Your task to perform on an android device: Open the phone app and click the voicemail tab. Image 0: 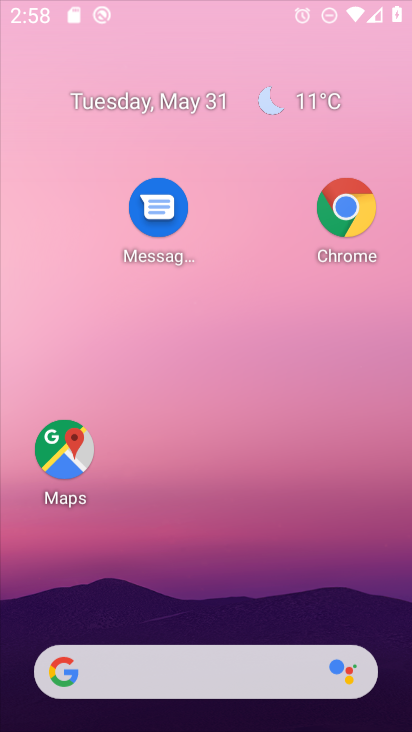
Step 0: click (257, 75)
Your task to perform on an android device: Open the phone app and click the voicemail tab. Image 1: 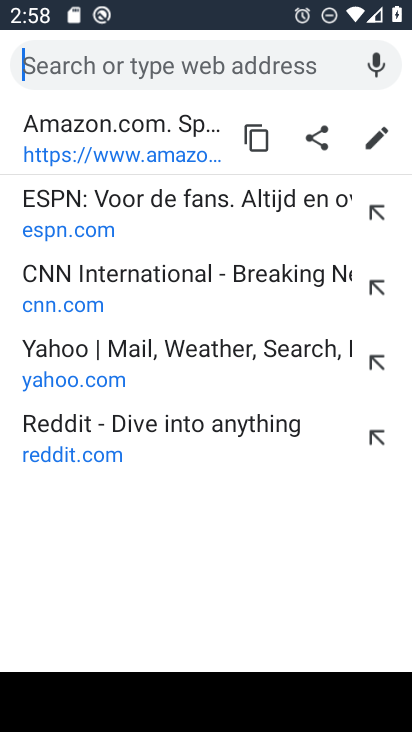
Step 1: press back button
Your task to perform on an android device: Open the phone app and click the voicemail tab. Image 2: 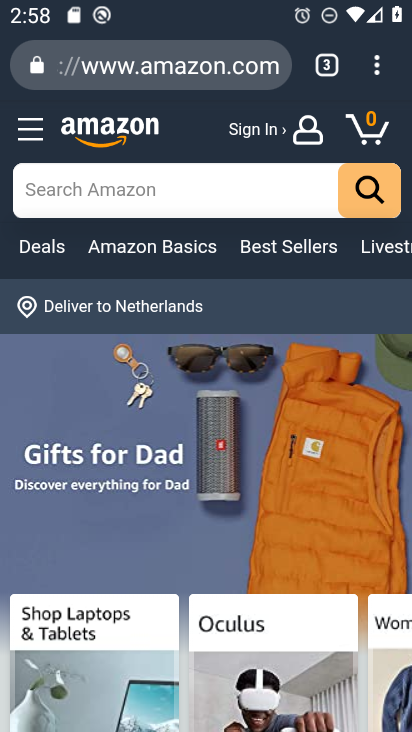
Step 2: drag from (208, 519) to (269, 131)
Your task to perform on an android device: Open the phone app and click the voicemail tab. Image 3: 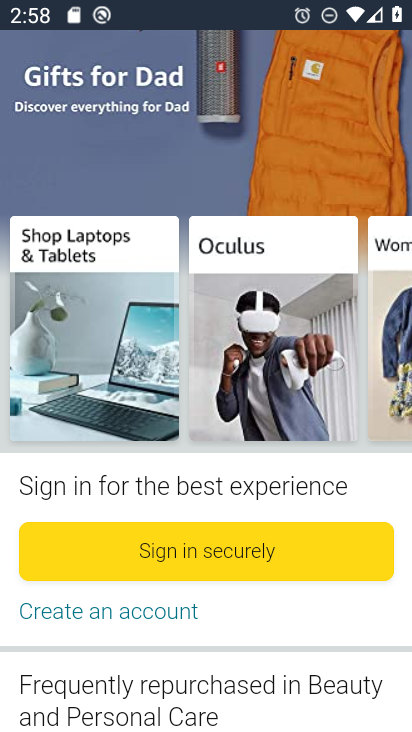
Step 3: drag from (266, 151) to (225, 569)
Your task to perform on an android device: Open the phone app and click the voicemail tab. Image 4: 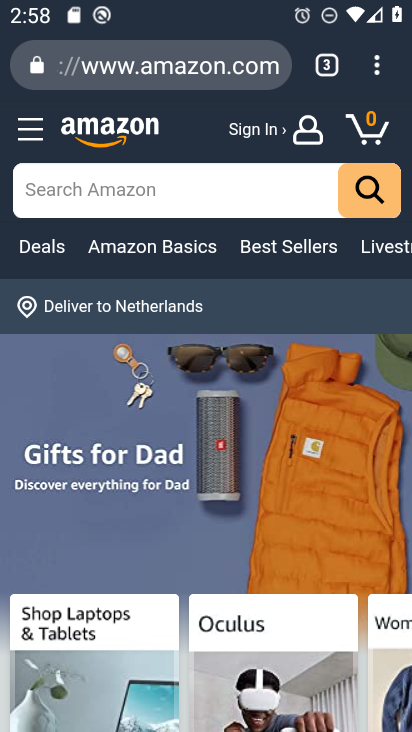
Step 4: press home button
Your task to perform on an android device: Open the phone app and click the voicemail tab. Image 5: 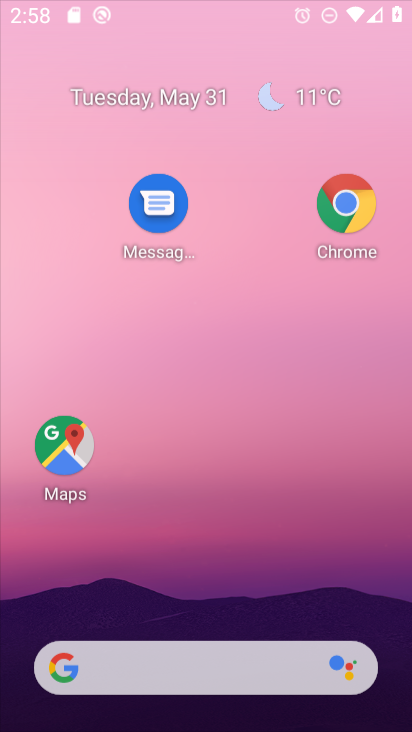
Step 5: drag from (207, 562) to (186, 0)
Your task to perform on an android device: Open the phone app and click the voicemail tab. Image 6: 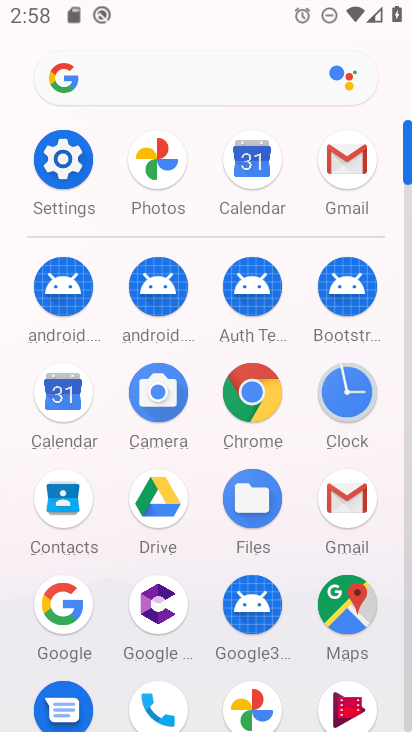
Step 6: click (160, 690)
Your task to perform on an android device: Open the phone app and click the voicemail tab. Image 7: 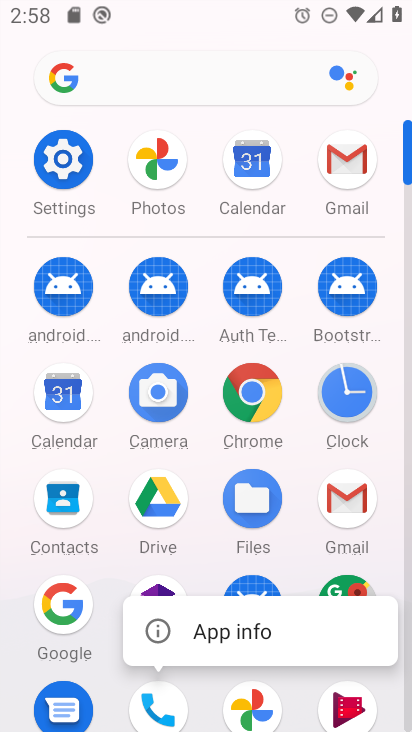
Step 7: click (197, 621)
Your task to perform on an android device: Open the phone app and click the voicemail tab. Image 8: 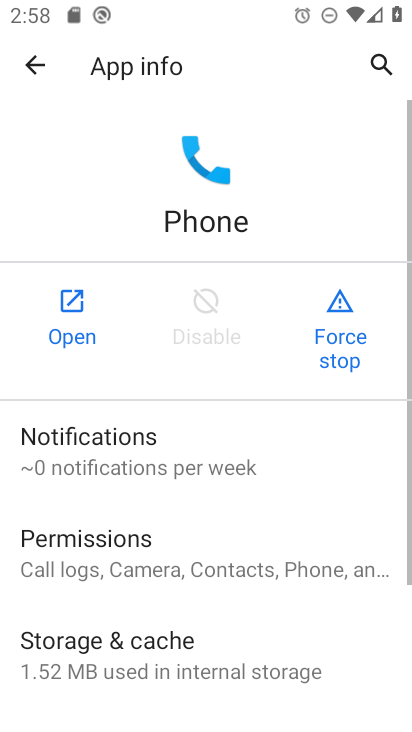
Step 8: click (73, 329)
Your task to perform on an android device: Open the phone app and click the voicemail tab. Image 9: 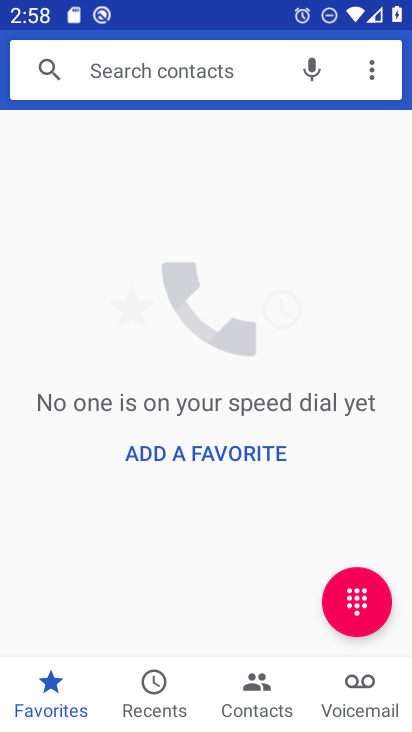
Step 9: click (350, 701)
Your task to perform on an android device: Open the phone app and click the voicemail tab. Image 10: 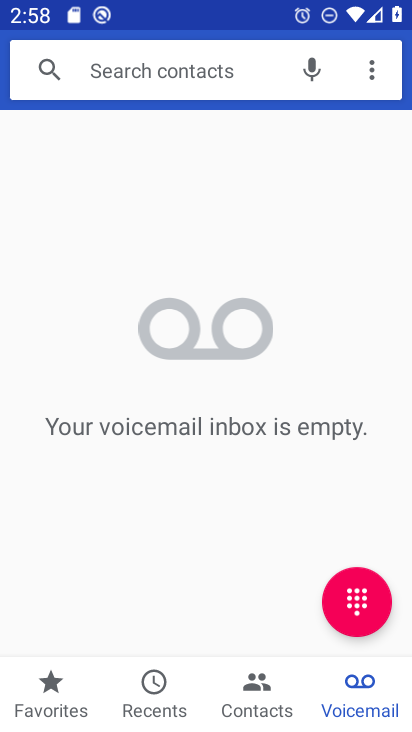
Step 10: task complete